Your task to perform on an android device: open app "Google Sheets" Image 0: 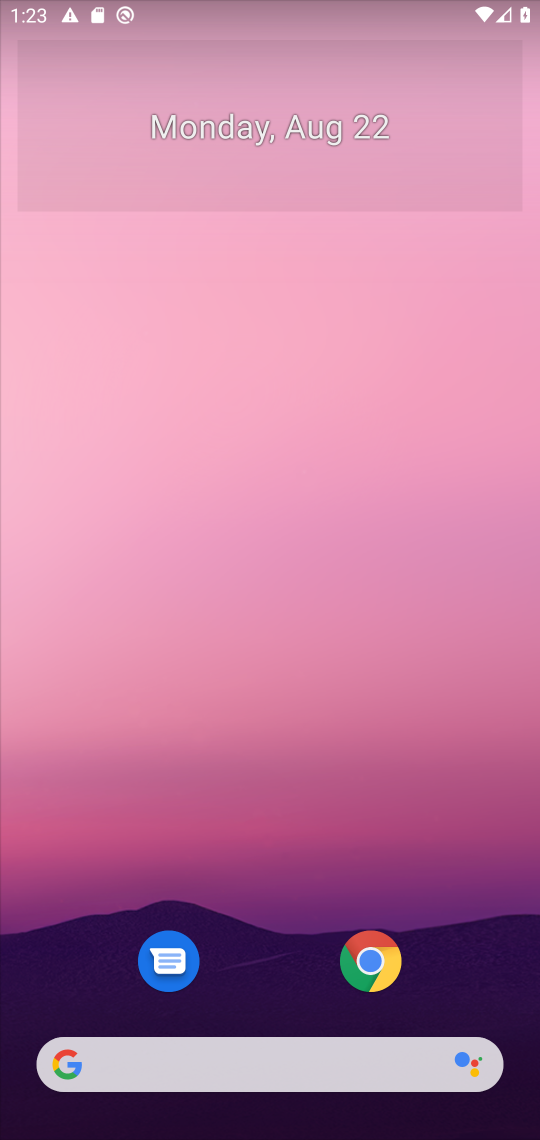
Step 0: press home button
Your task to perform on an android device: open app "Google Sheets" Image 1: 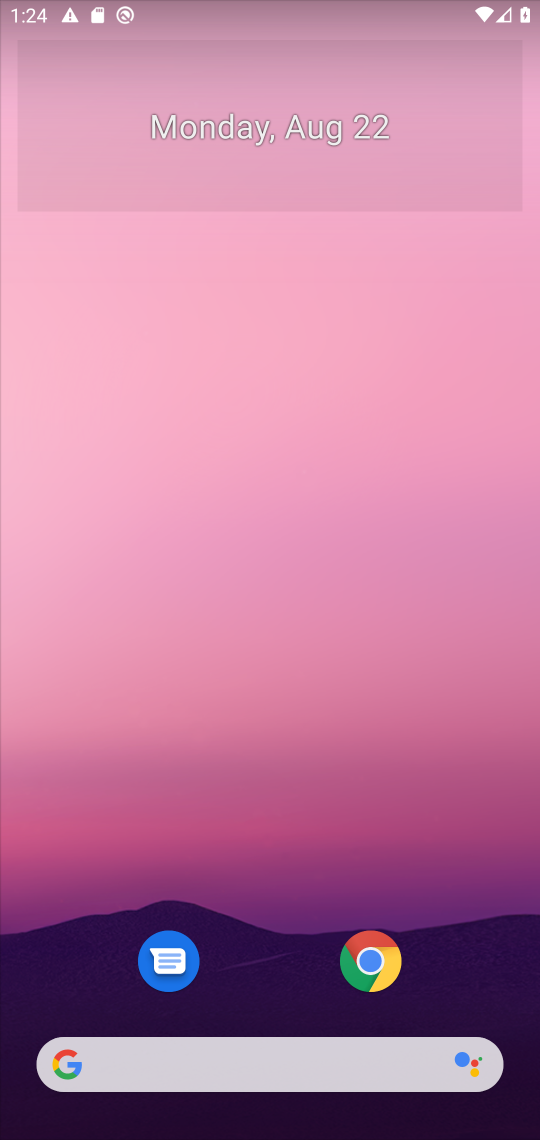
Step 1: drag from (457, 946) to (454, 110)
Your task to perform on an android device: open app "Google Sheets" Image 2: 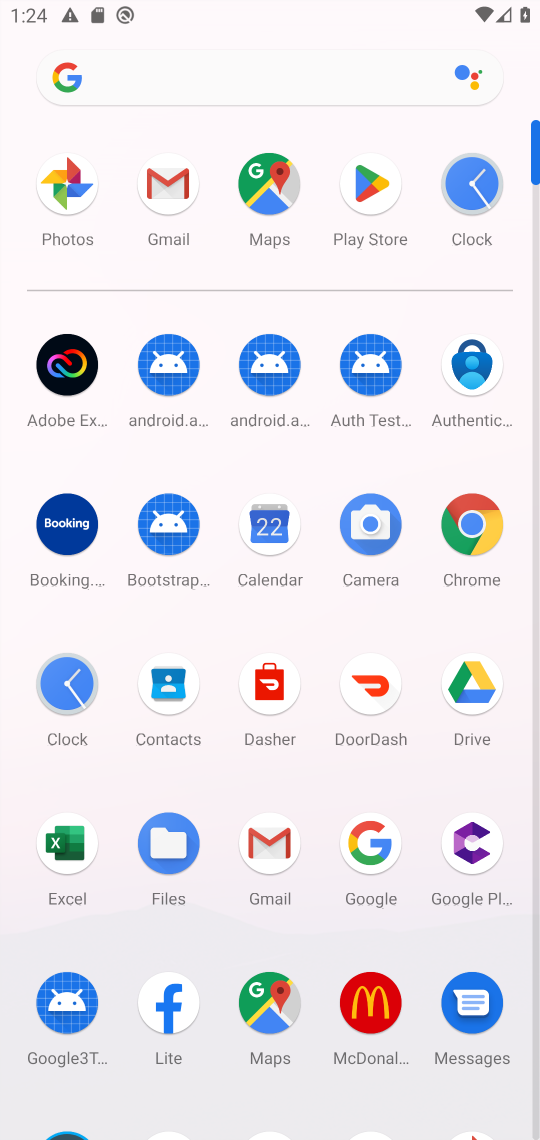
Step 2: click (374, 184)
Your task to perform on an android device: open app "Google Sheets" Image 3: 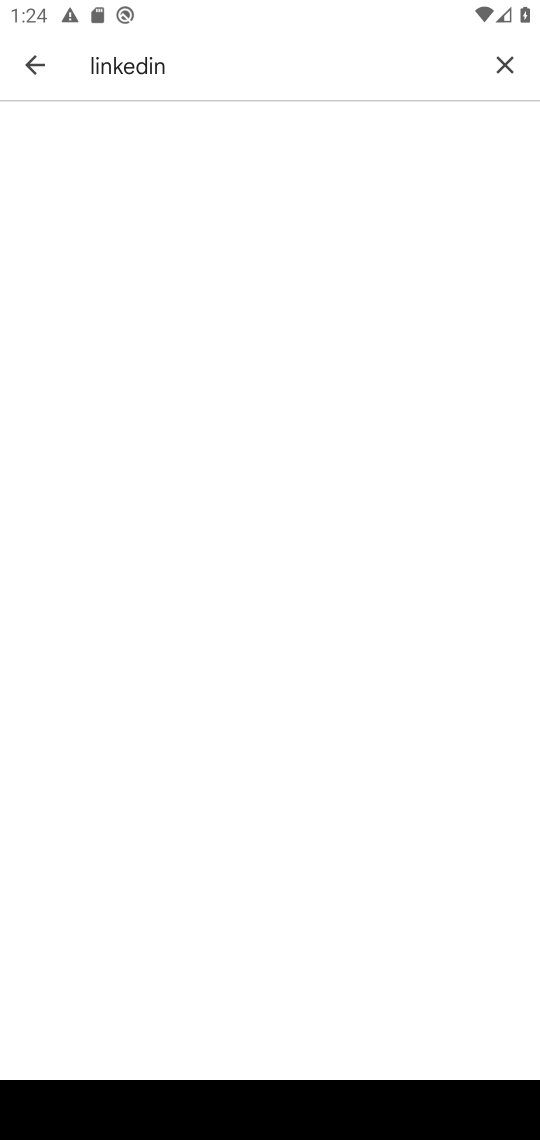
Step 3: press back button
Your task to perform on an android device: open app "Google Sheets" Image 4: 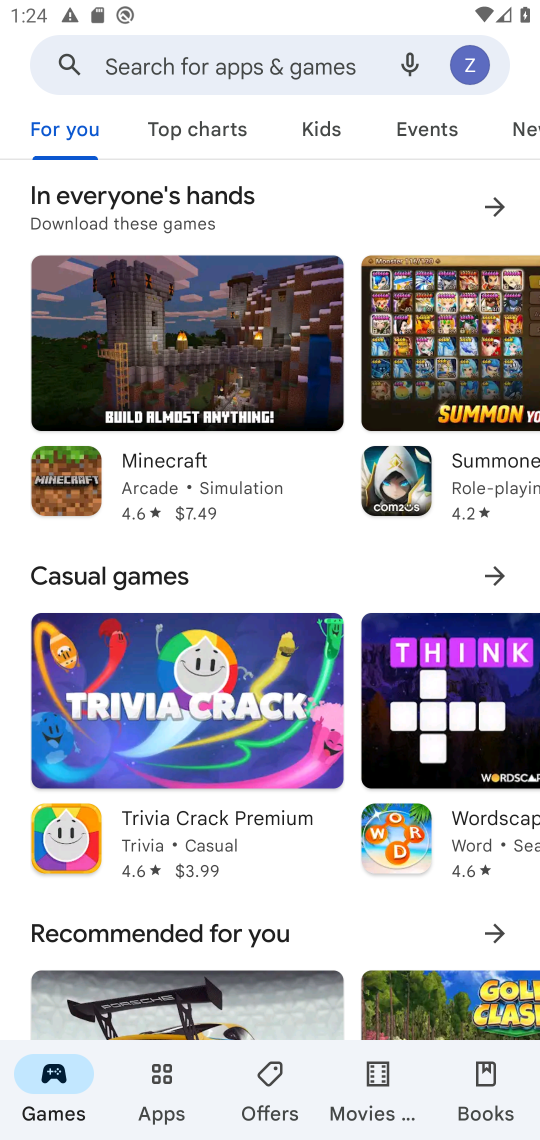
Step 4: click (230, 66)
Your task to perform on an android device: open app "Google Sheets" Image 5: 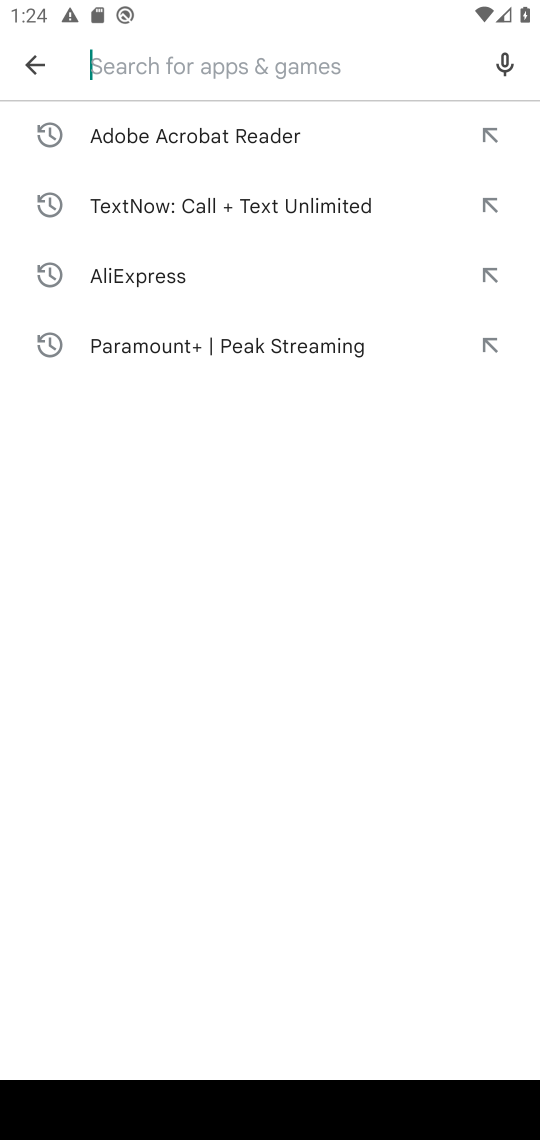
Step 5: type "Google Sheets"
Your task to perform on an android device: open app "Google Sheets" Image 6: 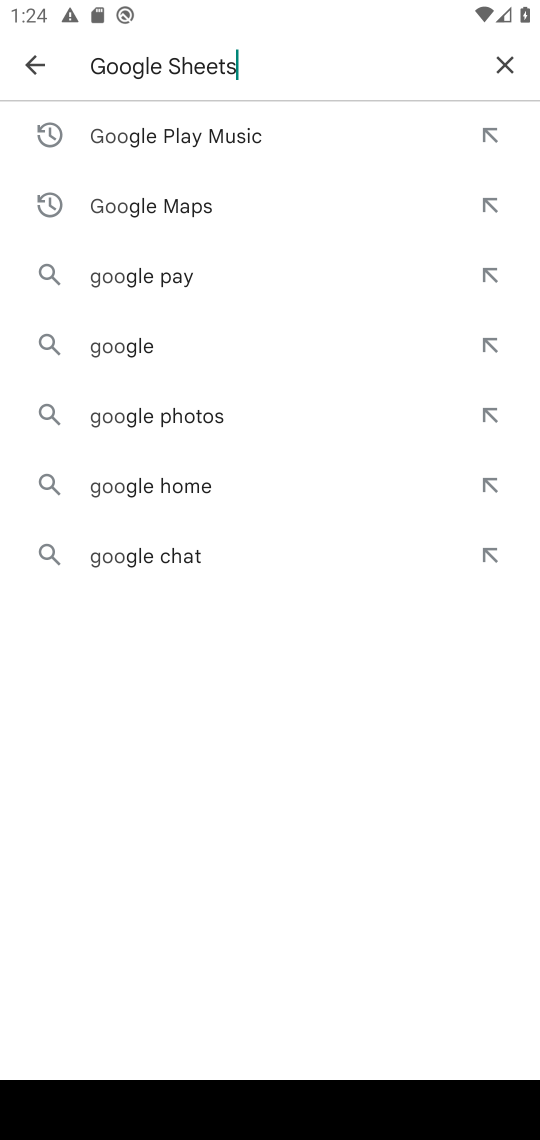
Step 6: press enter
Your task to perform on an android device: open app "Google Sheets" Image 7: 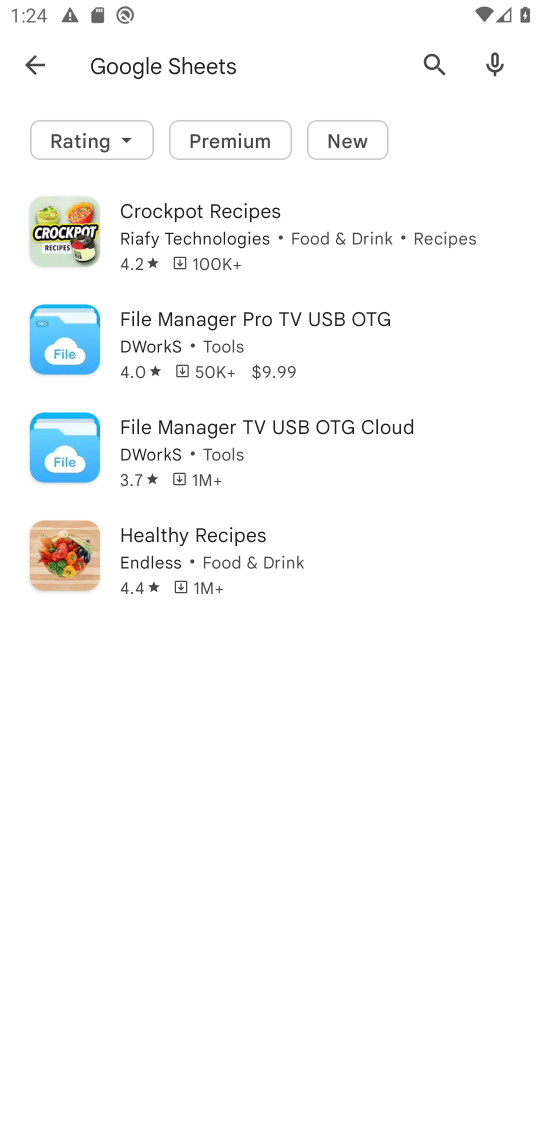
Step 7: task complete